Your task to perform on an android device: set the stopwatch Image 0: 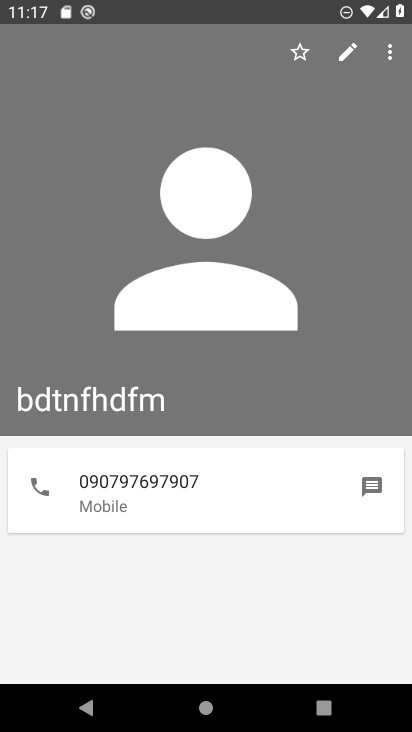
Step 0: press home button
Your task to perform on an android device: set the stopwatch Image 1: 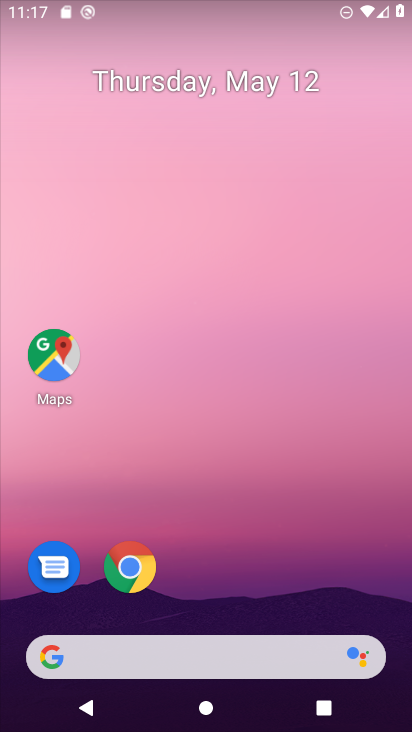
Step 1: drag from (313, 555) to (207, 3)
Your task to perform on an android device: set the stopwatch Image 2: 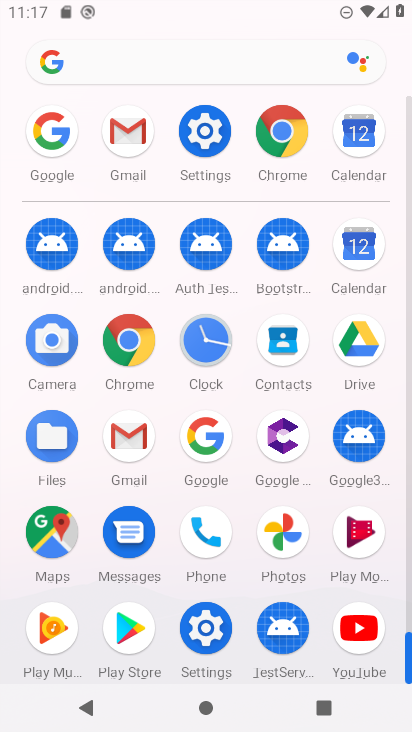
Step 2: click (220, 336)
Your task to perform on an android device: set the stopwatch Image 3: 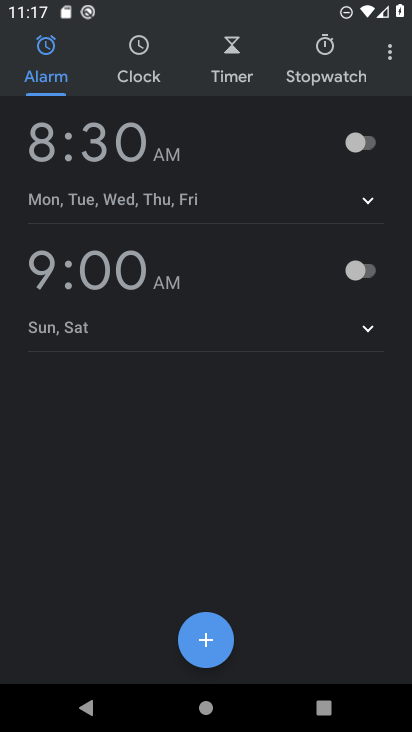
Step 3: click (334, 77)
Your task to perform on an android device: set the stopwatch Image 4: 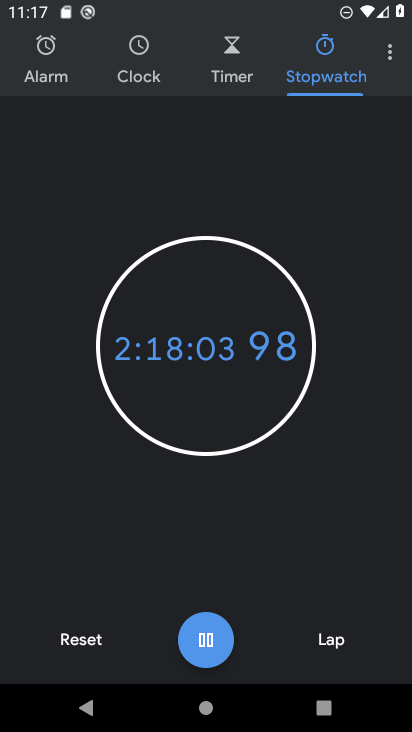
Step 4: task complete